Your task to perform on an android device: move an email to a new category in the gmail app Image 0: 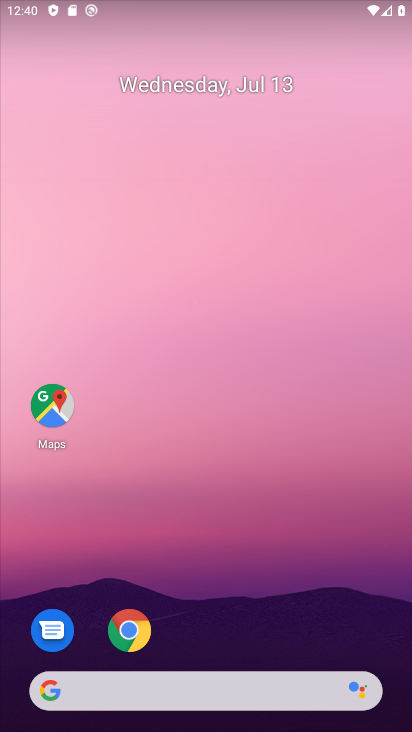
Step 0: drag from (274, 598) to (232, 81)
Your task to perform on an android device: move an email to a new category in the gmail app Image 1: 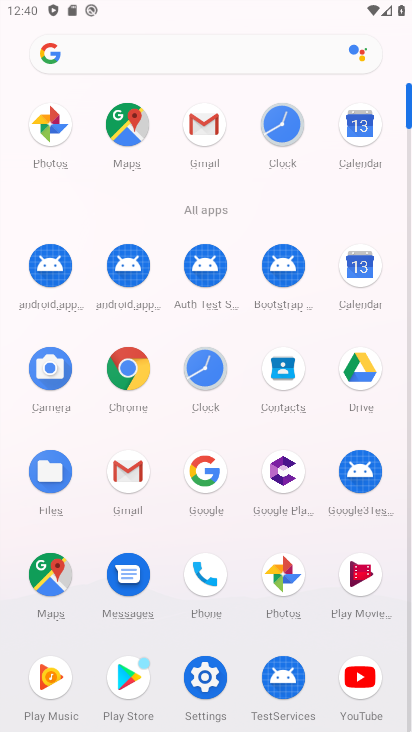
Step 1: click (220, 125)
Your task to perform on an android device: move an email to a new category in the gmail app Image 2: 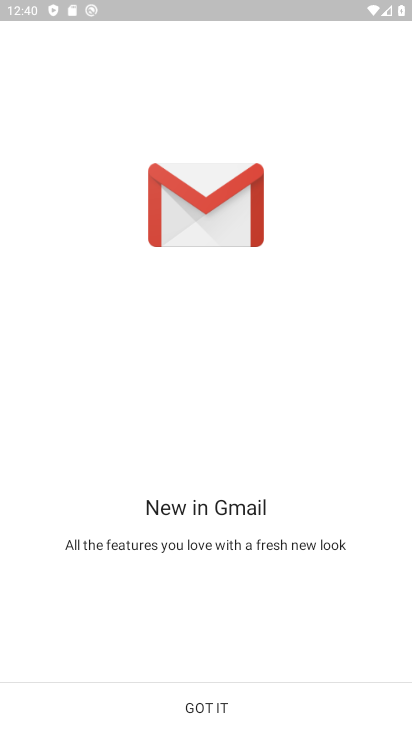
Step 2: click (187, 721)
Your task to perform on an android device: move an email to a new category in the gmail app Image 3: 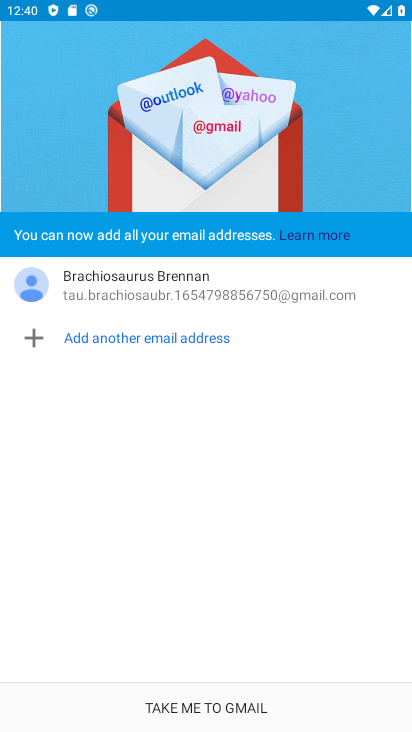
Step 3: click (193, 711)
Your task to perform on an android device: move an email to a new category in the gmail app Image 4: 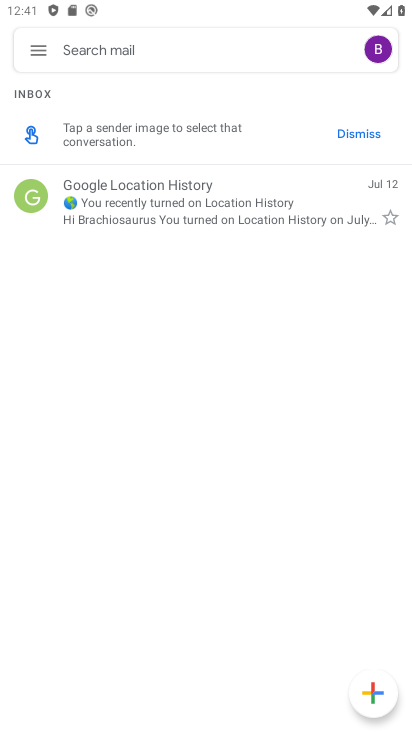
Step 4: click (260, 204)
Your task to perform on an android device: move an email to a new category in the gmail app Image 5: 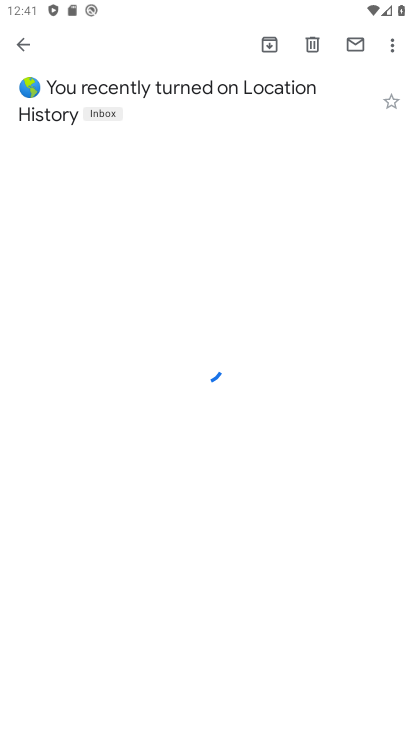
Step 5: click (393, 104)
Your task to perform on an android device: move an email to a new category in the gmail app Image 6: 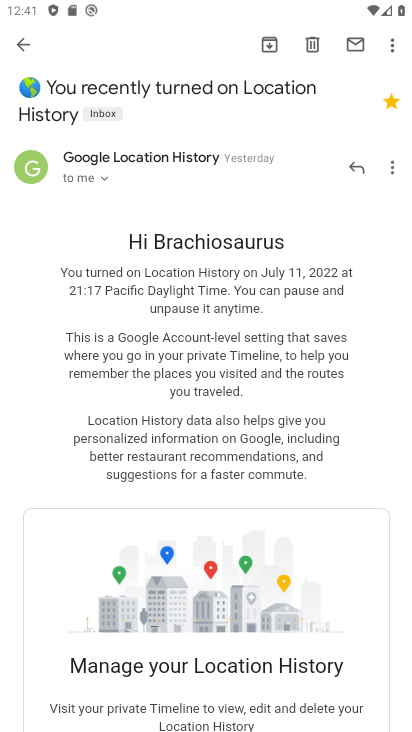
Step 6: task complete